Your task to perform on an android device: Open Google Maps Image 0: 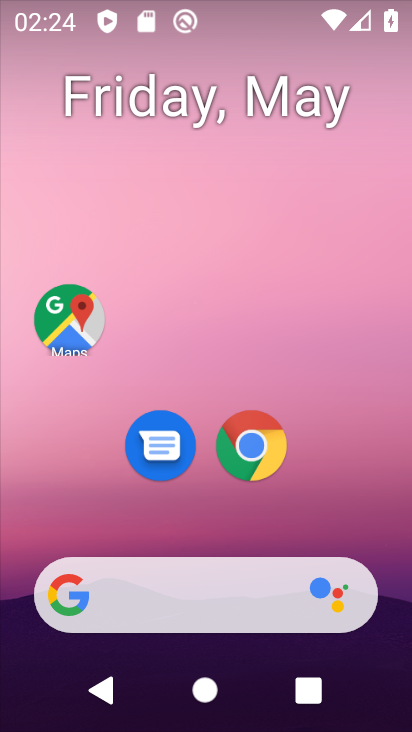
Step 0: click (60, 331)
Your task to perform on an android device: Open Google Maps Image 1: 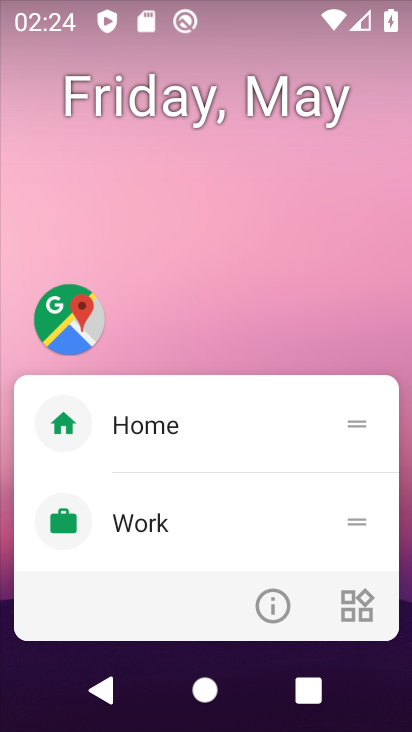
Step 1: click (69, 321)
Your task to perform on an android device: Open Google Maps Image 2: 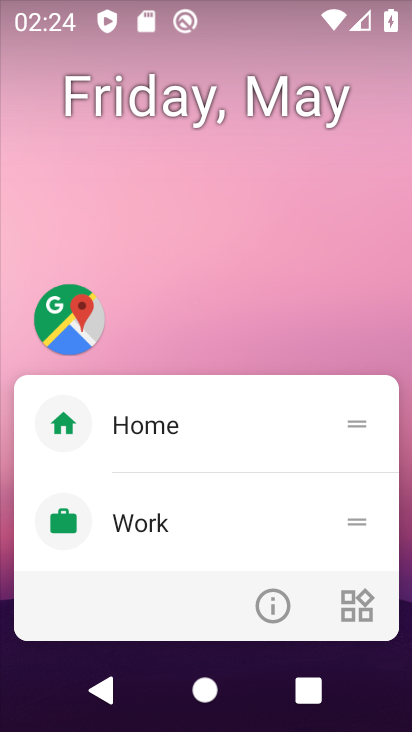
Step 2: click (78, 316)
Your task to perform on an android device: Open Google Maps Image 3: 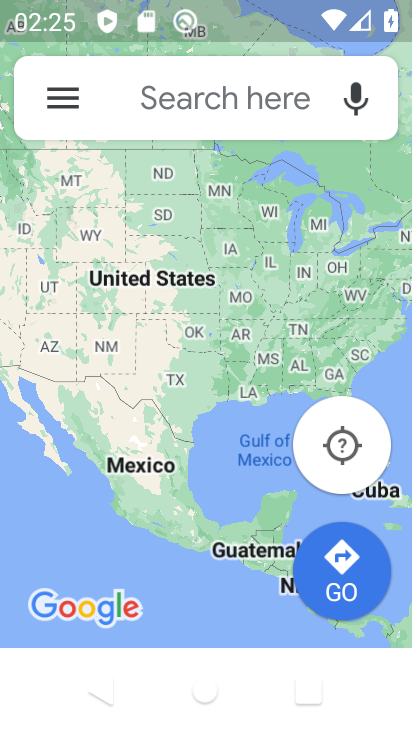
Step 3: task complete